Your task to perform on an android device: turn on the 24-hour format for clock Image 0: 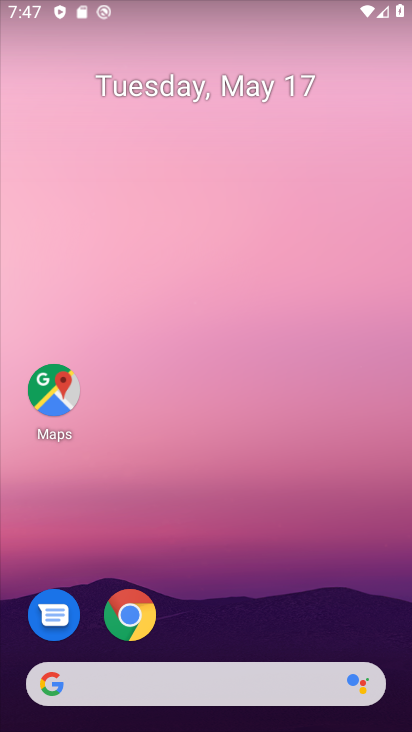
Step 0: drag from (240, 499) to (307, 71)
Your task to perform on an android device: turn on the 24-hour format for clock Image 1: 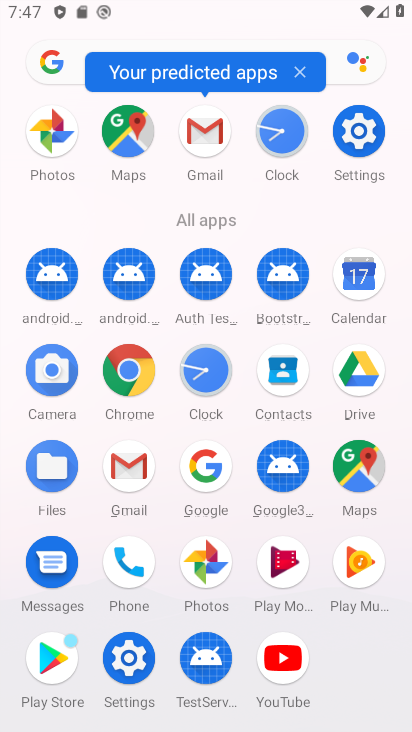
Step 1: click (196, 386)
Your task to perform on an android device: turn on the 24-hour format for clock Image 2: 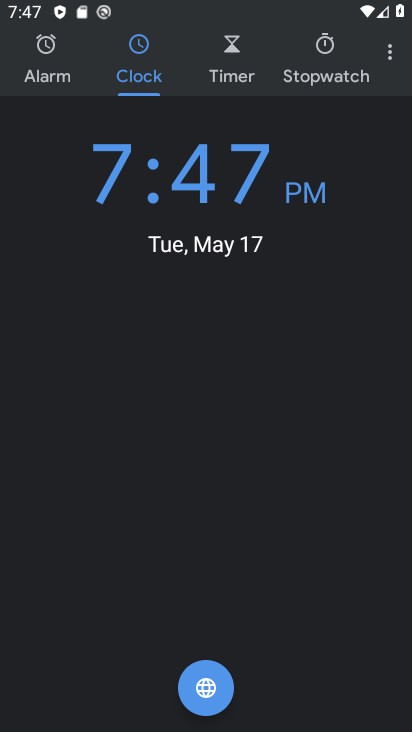
Step 2: click (388, 44)
Your task to perform on an android device: turn on the 24-hour format for clock Image 3: 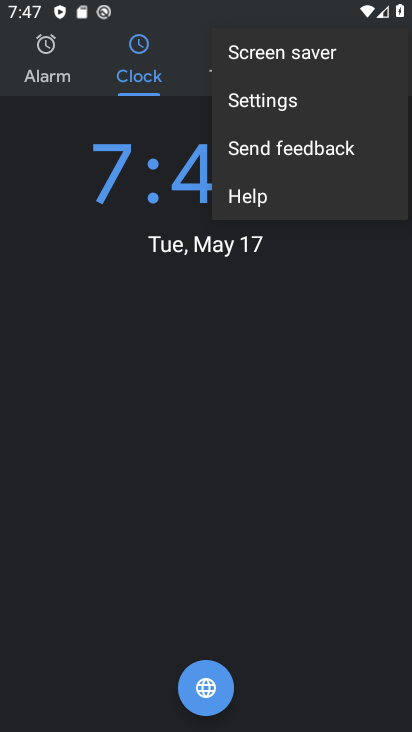
Step 3: click (279, 113)
Your task to perform on an android device: turn on the 24-hour format for clock Image 4: 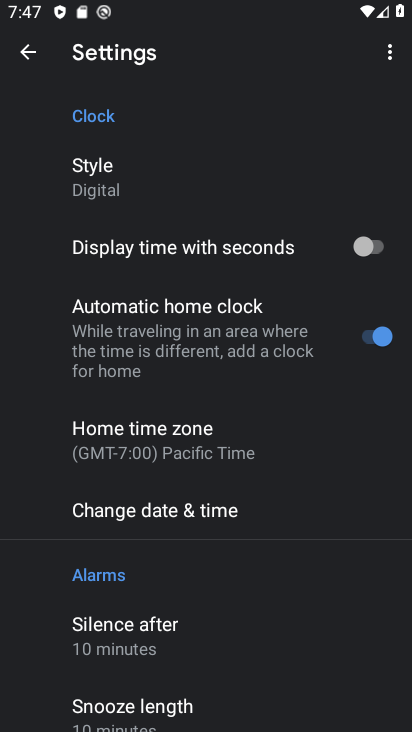
Step 4: click (166, 506)
Your task to perform on an android device: turn on the 24-hour format for clock Image 5: 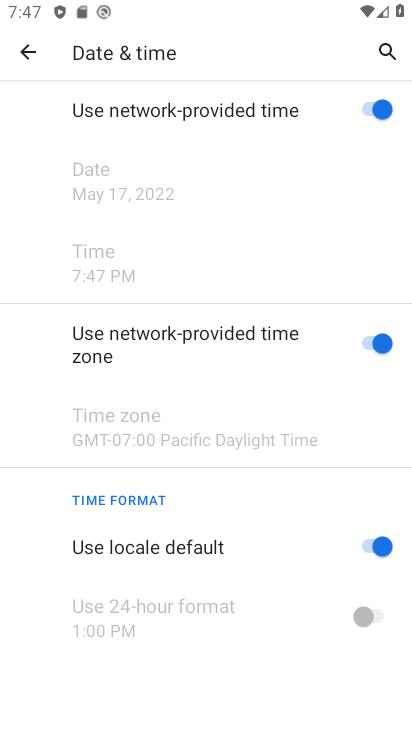
Step 5: click (385, 537)
Your task to perform on an android device: turn on the 24-hour format for clock Image 6: 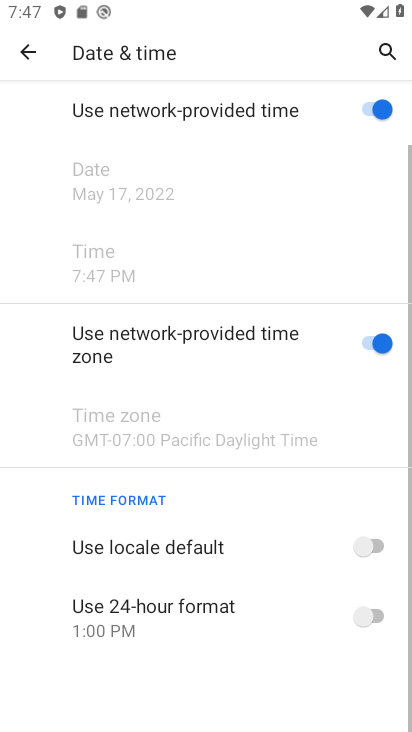
Step 6: click (361, 613)
Your task to perform on an android device: turn on the 24-hour format for clock Image 7: 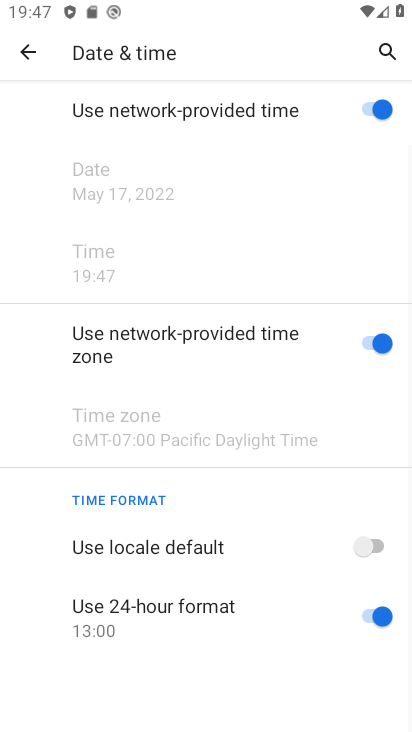
Step 7: task complete